Your task to perform on an android device: Open Wikipedia Image 0: 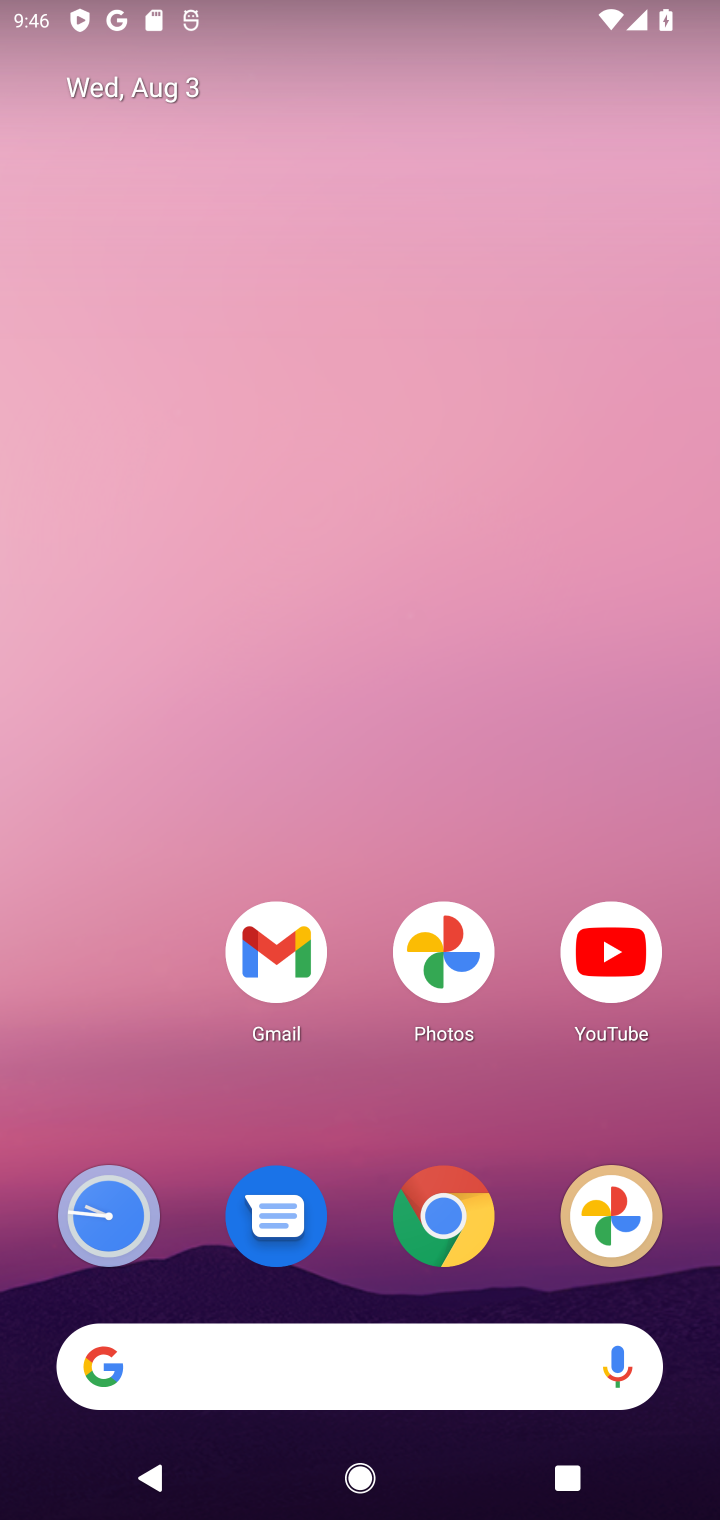
Step 0: click (433, 1209)
Your task to perform on an android device: Open Wikipedia Image 1: 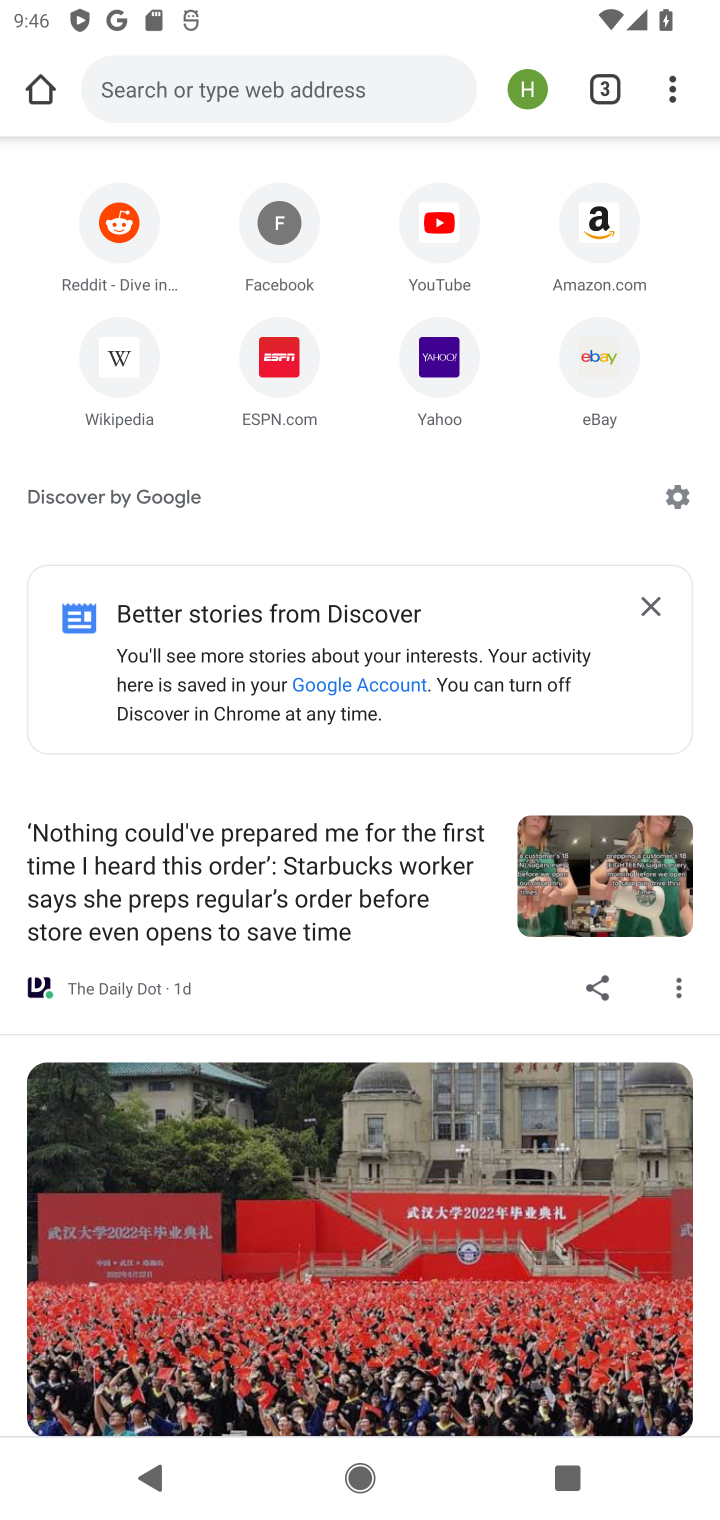
Step 1: click (120, 353)
Your task to perform on an android device: Open Wikipedia Image 2: 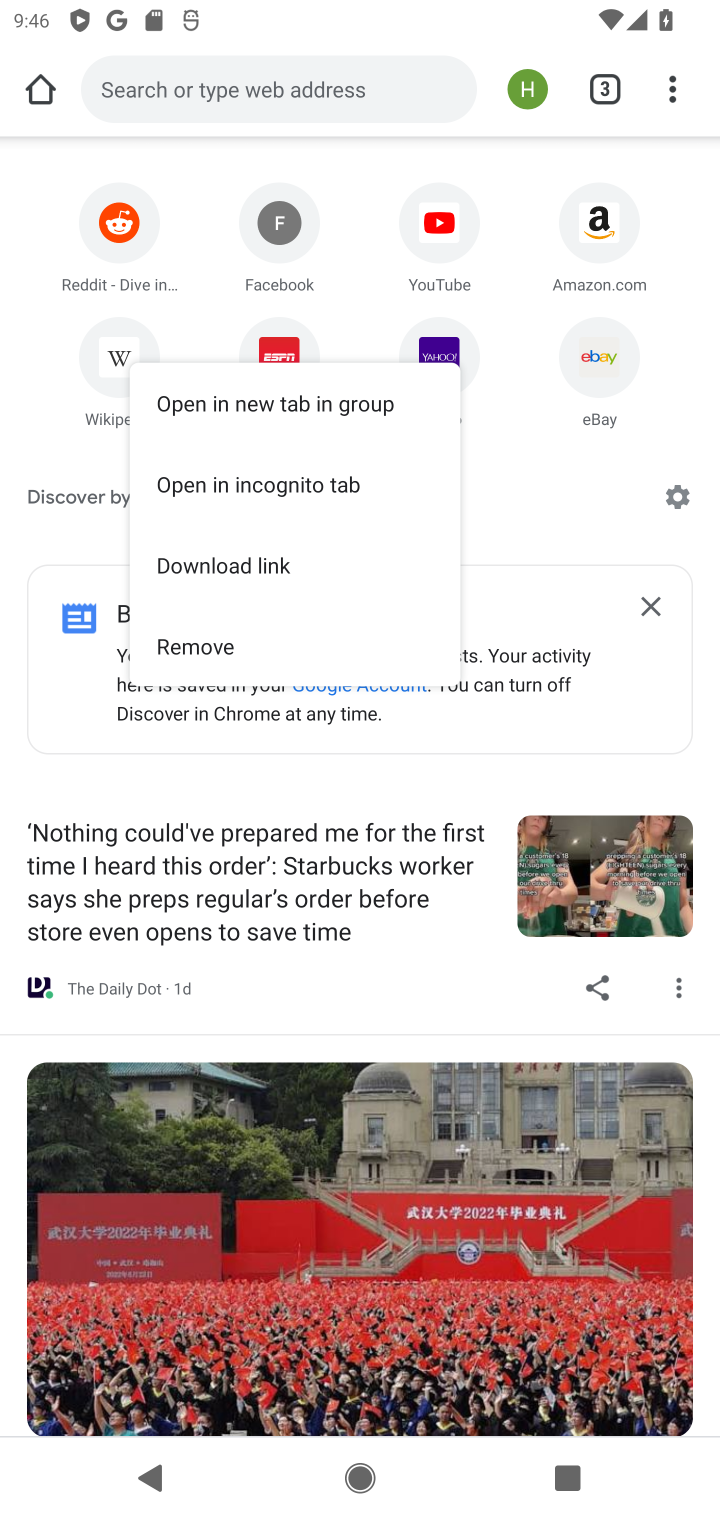
Step 2: click (115, 350)
Your task to perform on an android device: Open Wikipedia Image 3: 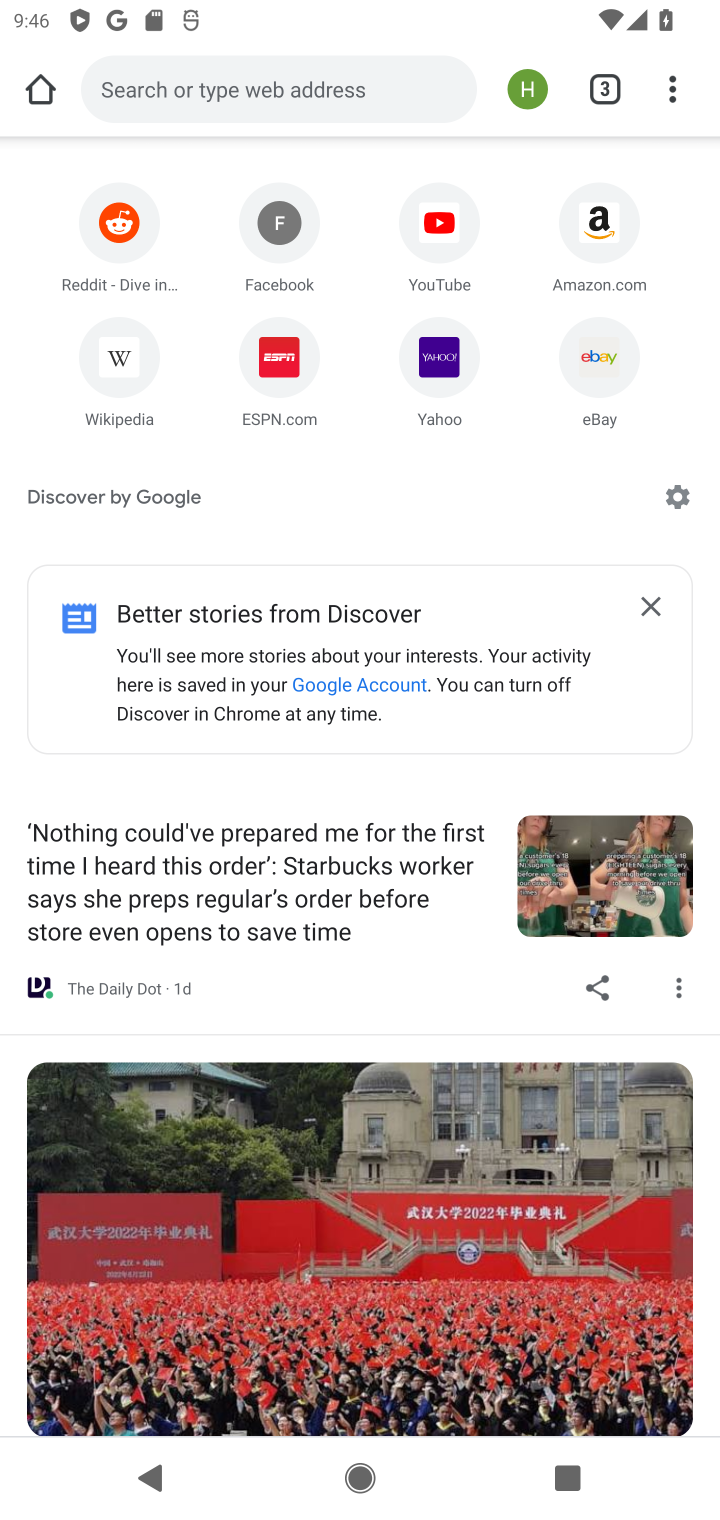
Step 3: click (117, 349)
Your task to perform on an android device: Open Wikipedia Image 4: 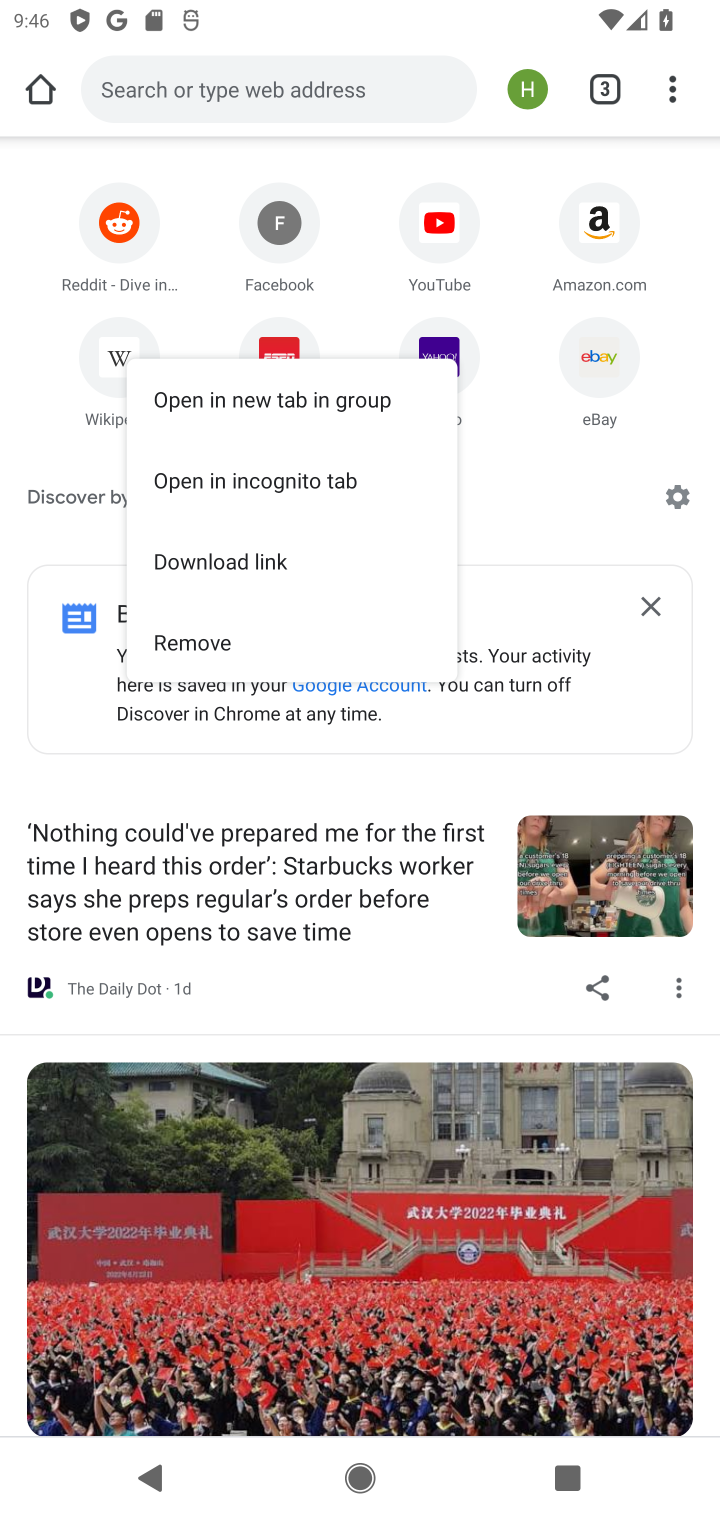
Step 4: click (109, 339)
Your task to perform on an android device: Open Wikipedia Image 5: 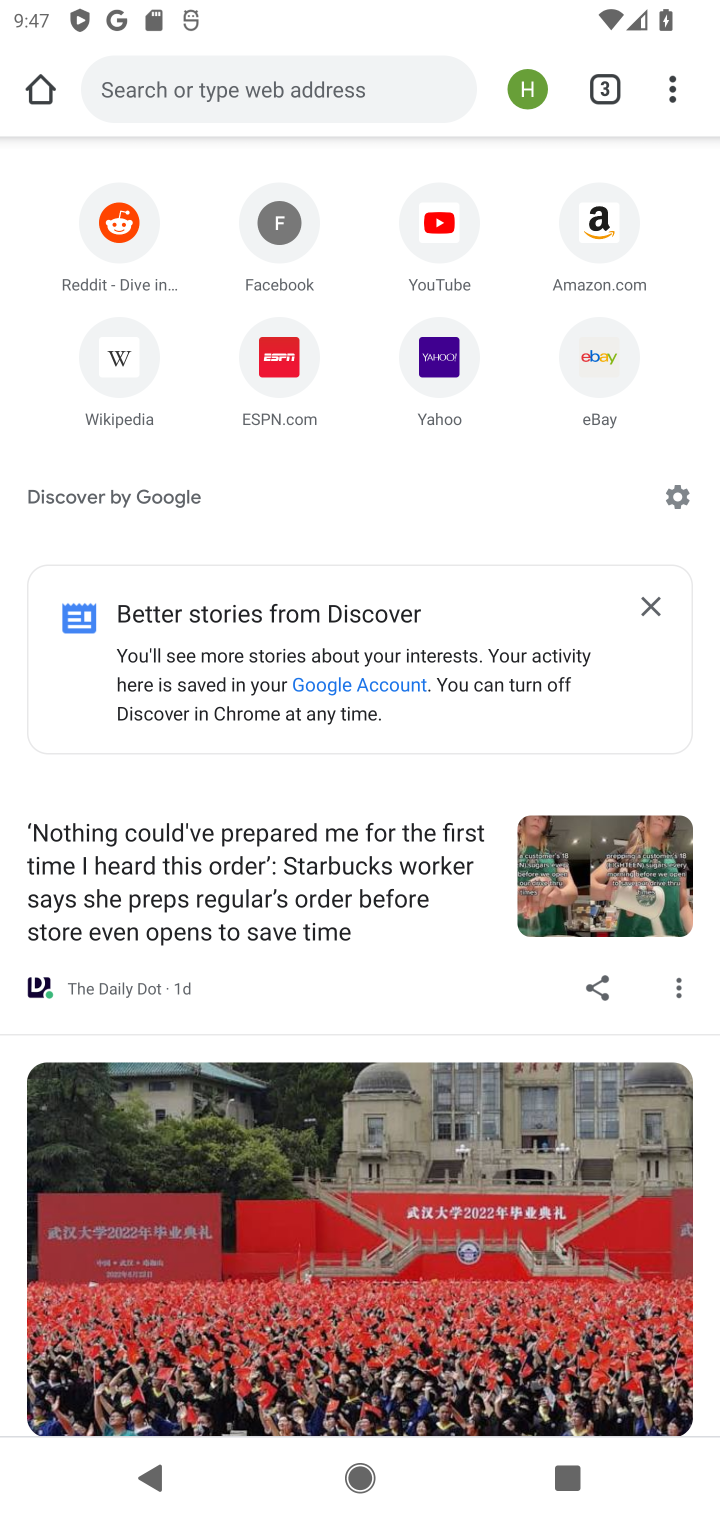
Step 5: click (113, 352)
Your task to perform on an android device: Open Wikipedia Image 6: 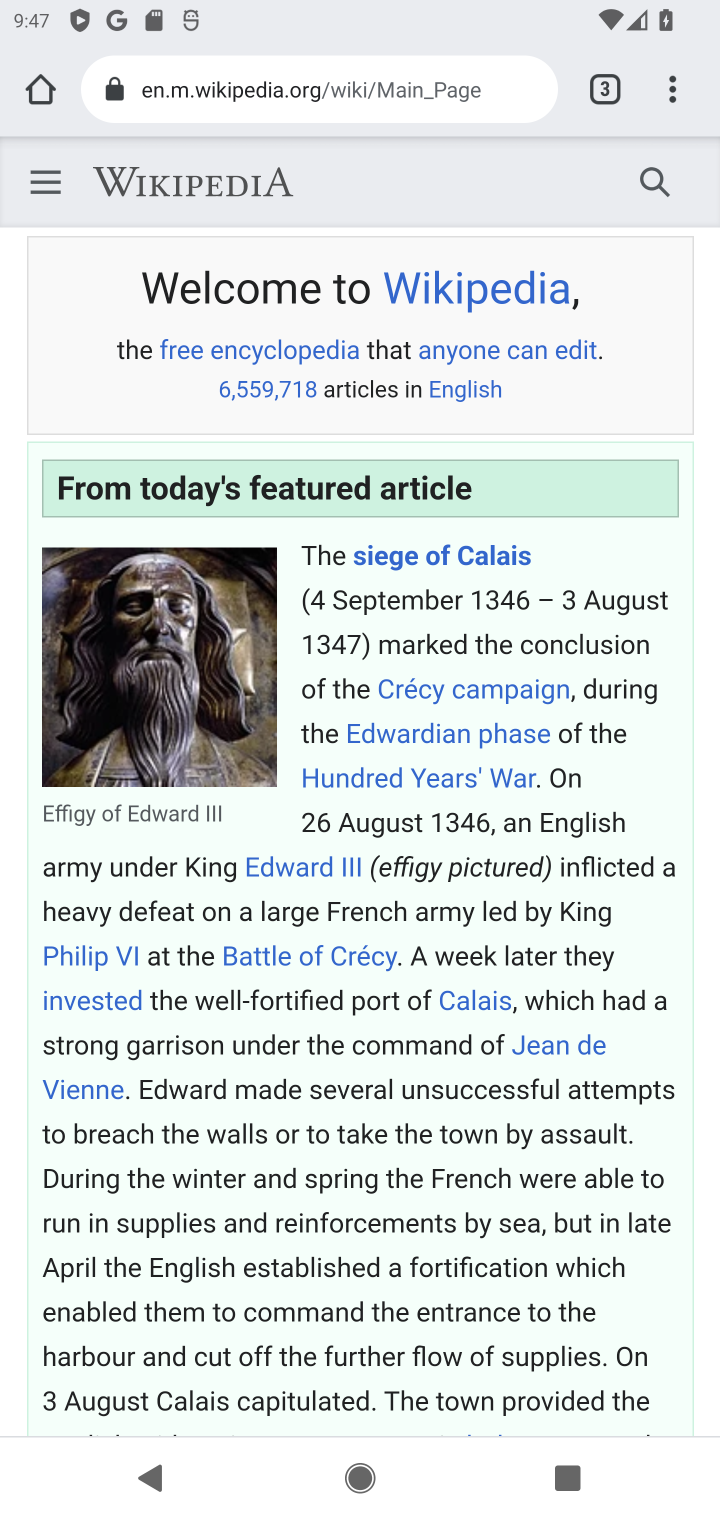
Step 6: task complete